Your task to perform on an android device: turn on priority inbox in the gmail app Image 0: 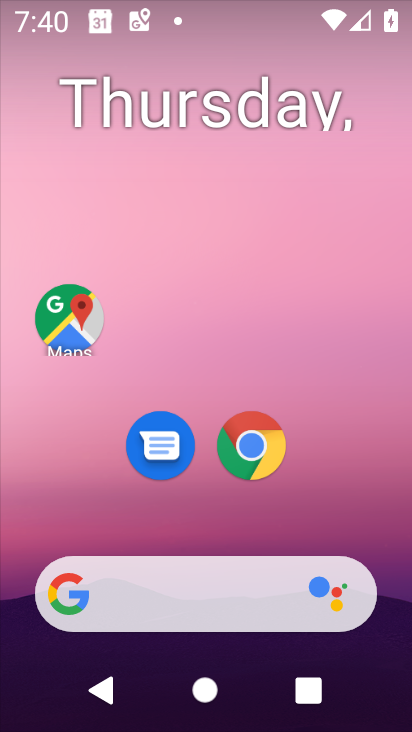
Step 0: drag from (403, 615) to (333, 30)
Your task to perform on an android device: turn on priority inbox in the gmail app Image 1: 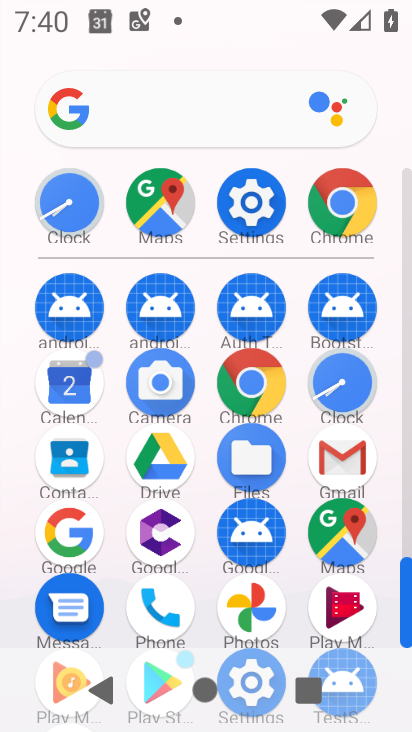
Step 1: click (345, 451)
Your task to perform on an android device: turn on priority inbox in the gmail app Image 2: 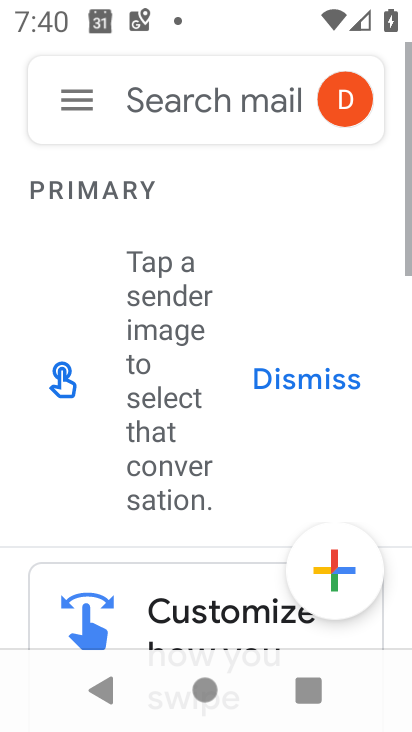
Step 2: click (68, 100)
Your task to perform on an android device: turn on priority inbox in the gmail app Image 3: 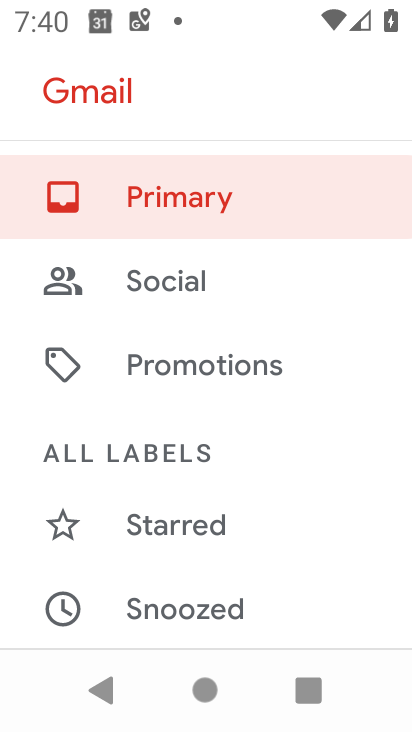
Step 3: drag from (177, 572) to (177, 0)
Your task to perform on an android device: turn on priority inbox in the gmail app Image 4: 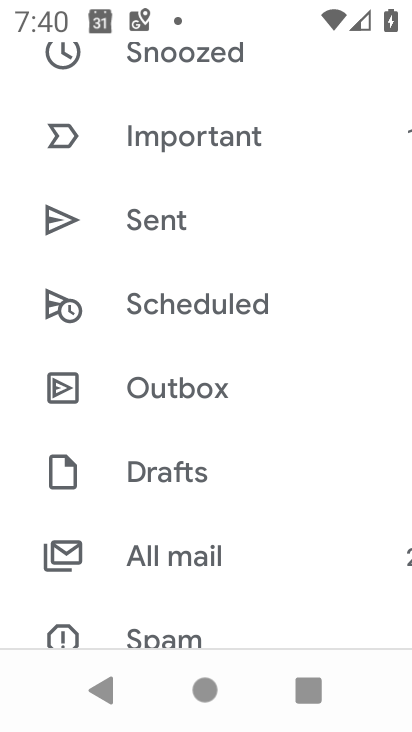
Step 4: drag from (159, 588) to (233, 0)
Your task to perform on an android device: turn on priority inbox in the gmail app Image 5: 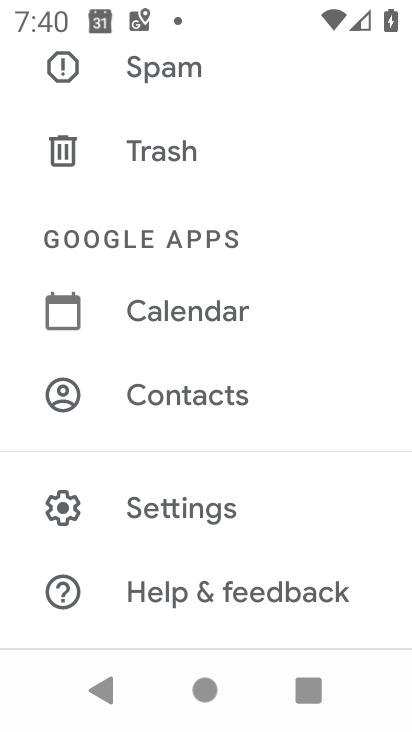
Step 5: click (251, 512)
Your task to perform on an android device: turn on priority inbox in the gmail app Image 6: 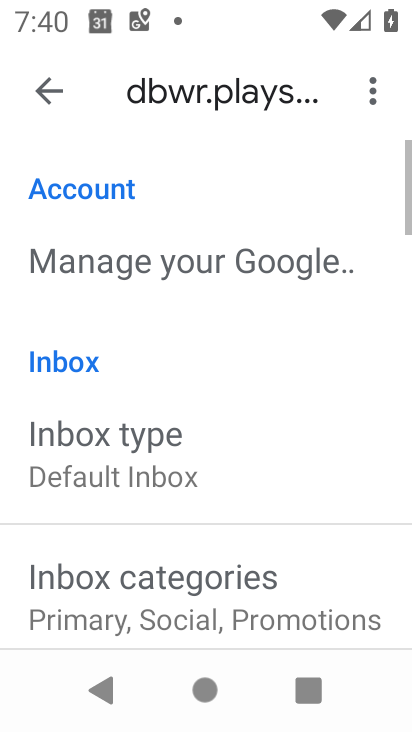
Step 6: click (193, 482)
Your task to perform on an android device: turn on priority inbox in the gmail app Image 7: 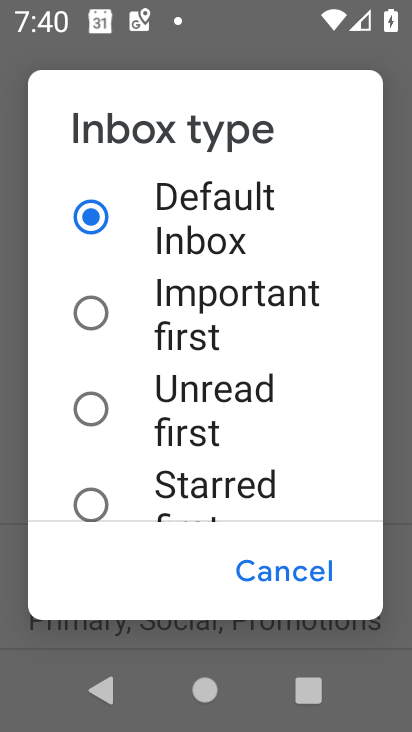
Step 7: drag from (132, 463) to (150, 85)
Your task to perform on an android device: turn on priority inbox in the gmail app Image 8: 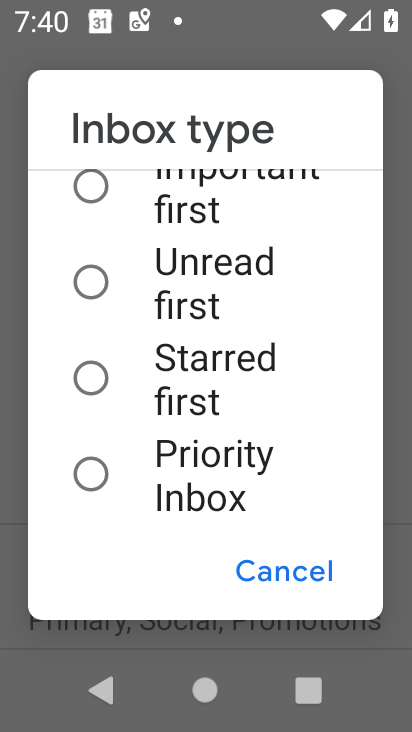
Step 8: click (84, 481)
Your task to perform on an android device: turn on priority inbox in the gmail app Image 9: 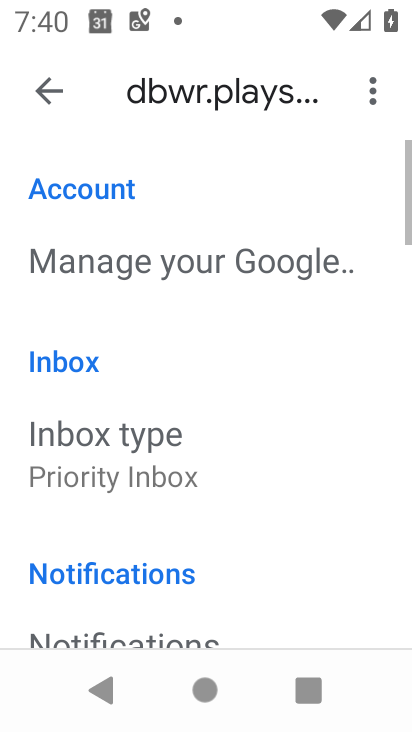
Step 9: task complete